Your task to perform on an android device: toggle data saver in the chrome app Image 0: 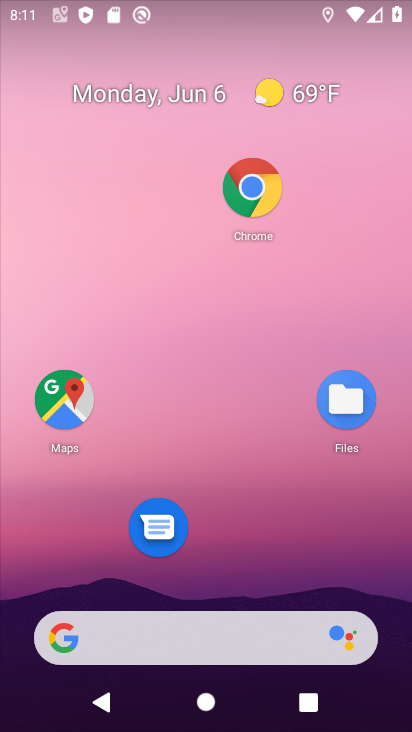
Step 0: drag from (242, 557) to (261, 71)
Your task to perform on an android device: toggle data saver in the chrome app Image 1: 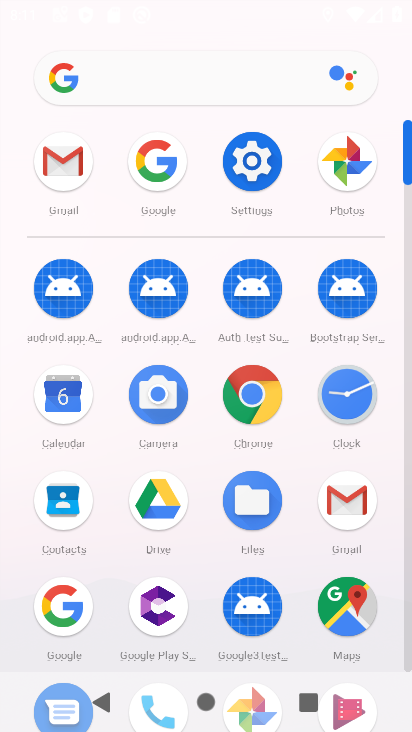
Step 1: click (254, 396)
Your task to perform on an android device: toggle data saver in the chrome app Image 2: 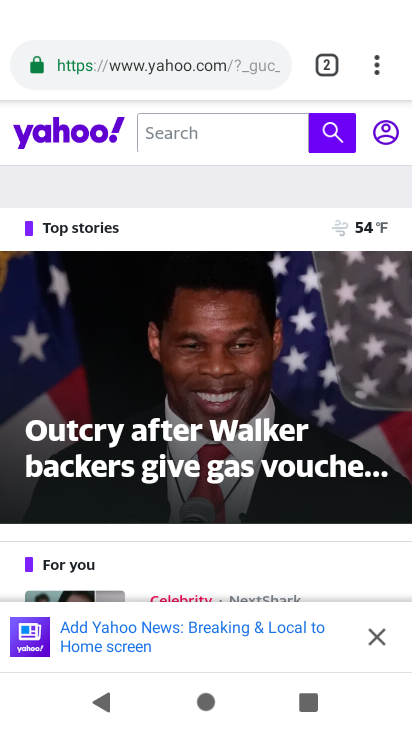
Step 2: click (367, 61)
Your task to perform on an android device: toggle data saver in the chrome app Image 3: 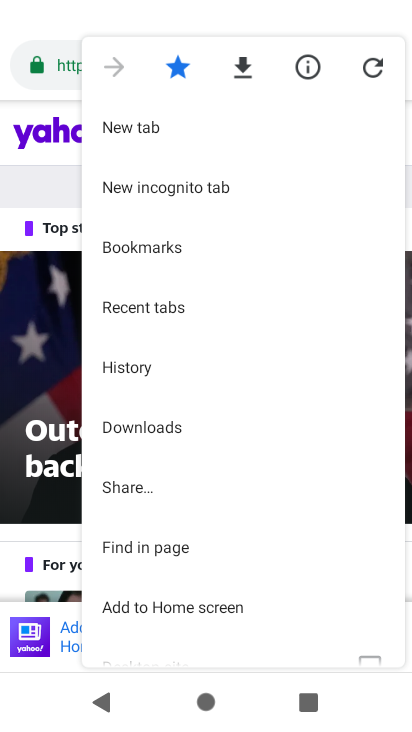
Step 3: drag from (203, 514) to (195, 182)
Your task to perform on an android device: toggle data saver in the chrome app Image 4: 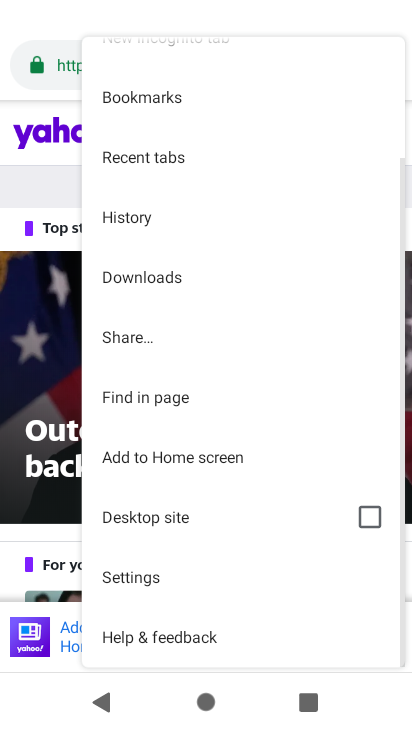
Step 4: click (152, 579)
Your task to perform on an android device: toggle data saver in the chrome app Image 5: 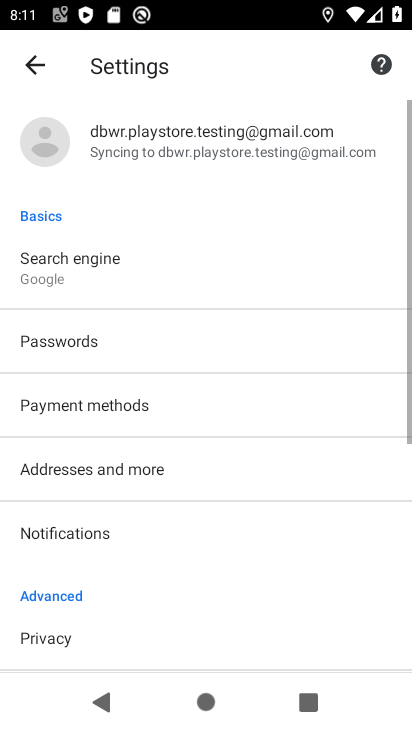
Step 5: drag from (163, 572) to (172, 260)
Your task to perform on an android device: toggle data saver in the chrome app Image 6: 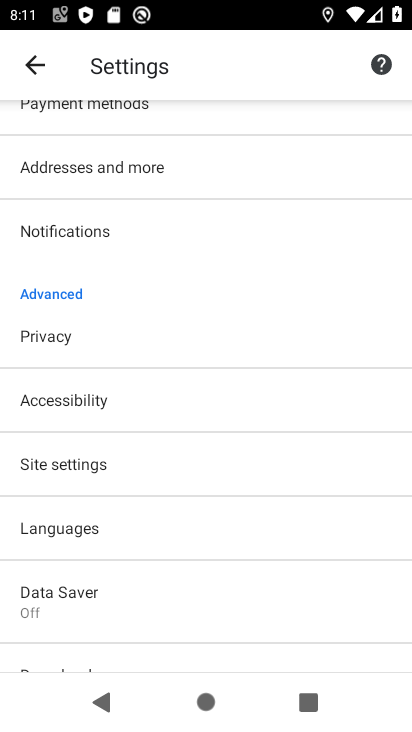
Step 6: click (63, 598)
Your task to perform on an android device: toggle data saver in the chrome app Image 7: 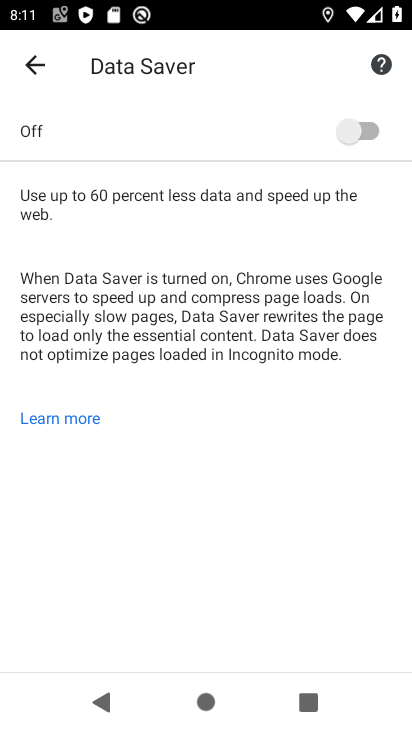
Step 7: click (361, 136)
Your task to perform on an android device: toggle data saver in the chrome app Image 8: 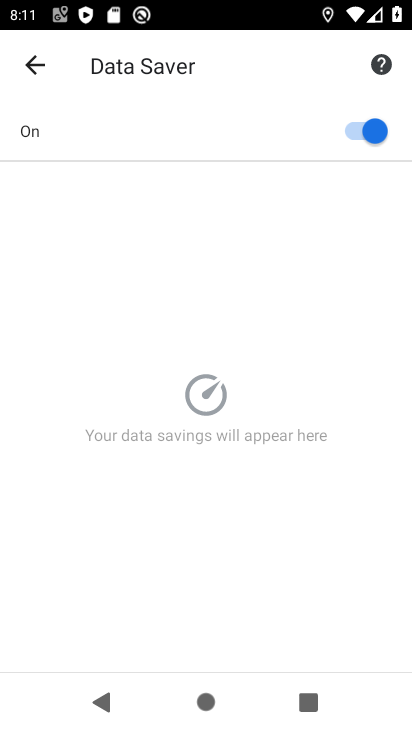
Step 8: task complete